Your task to perform on an android device: open wifi settings Image 0: 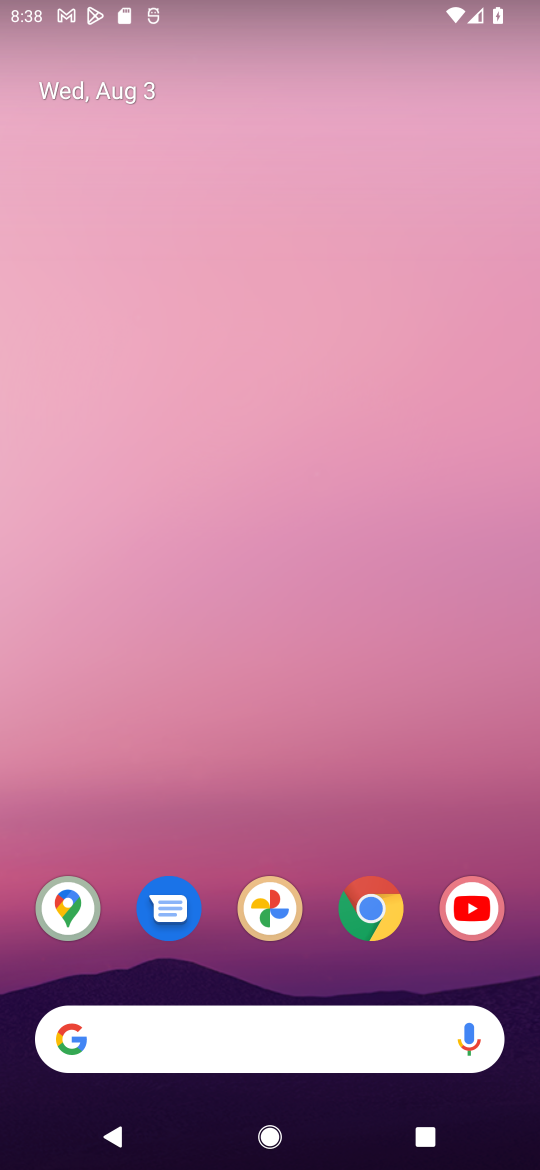
Step 0: drag from (305, 1035) to (247, 353)
Your task to perform on an android device: open wifi settings Image 1: 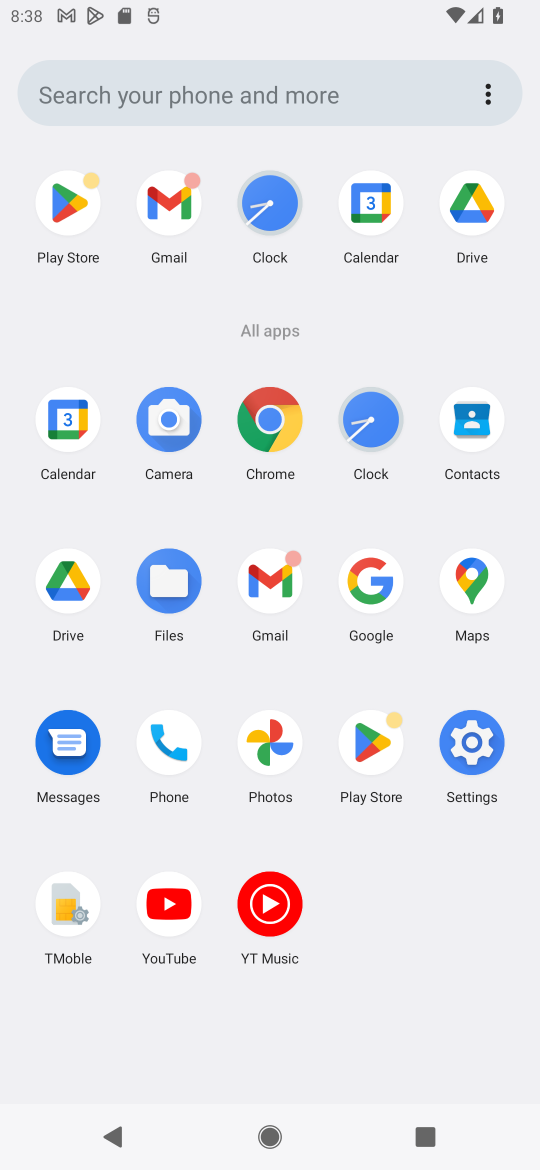
Step 1: click (461, 743)
Your task to perform on an android device: open wifi settings Image 2: 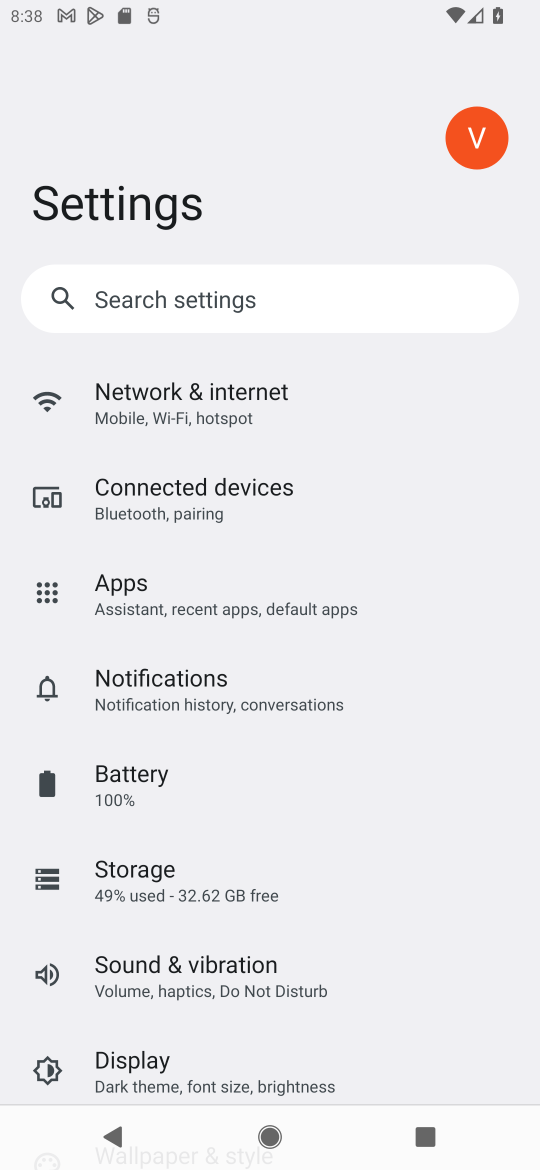
Step 2: click (135, 401)
Your task to perform on an android device: open wifi settings Image 3: 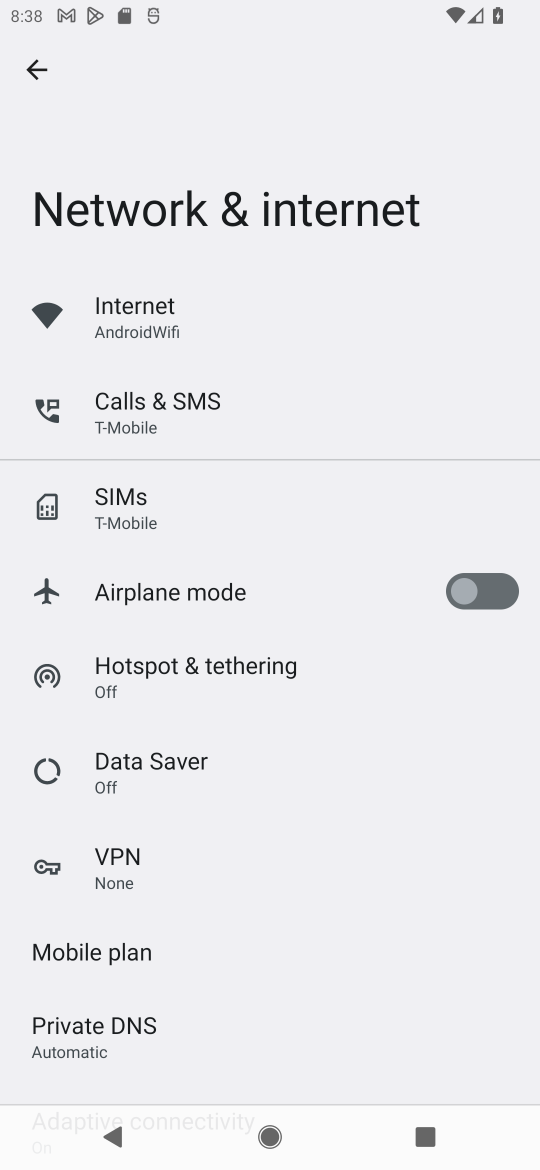
Step 3: click (126, 302)
Your task to perform on an android device: open wifi settings Image 4: 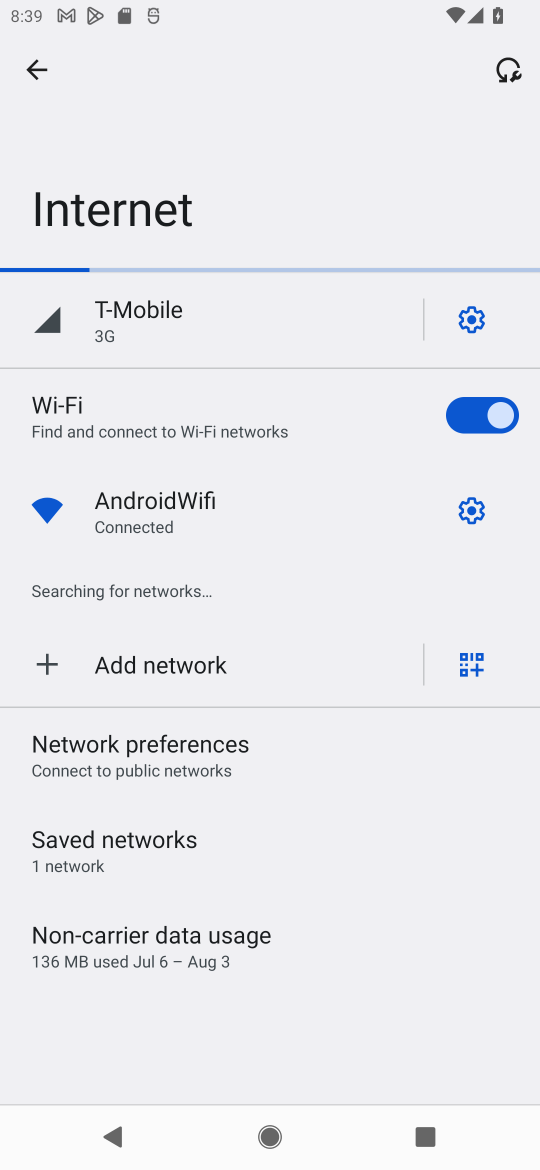
Step 4: task complete